Your task to perform on an android device: change keyboard looks Image 0: 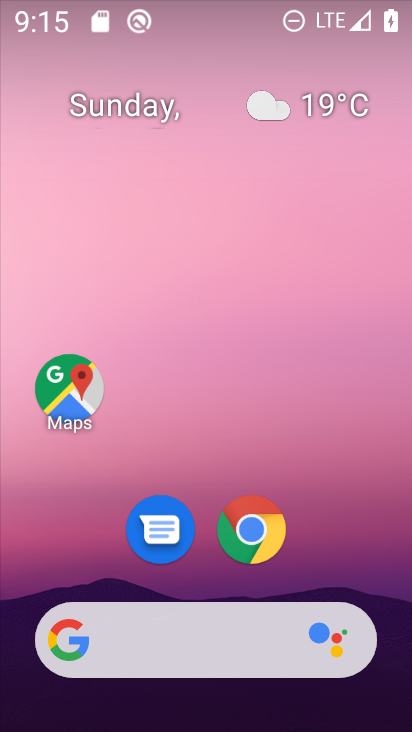
Step 0: press home button
Your task to perform on an android device: change keyboard looks Image 1: 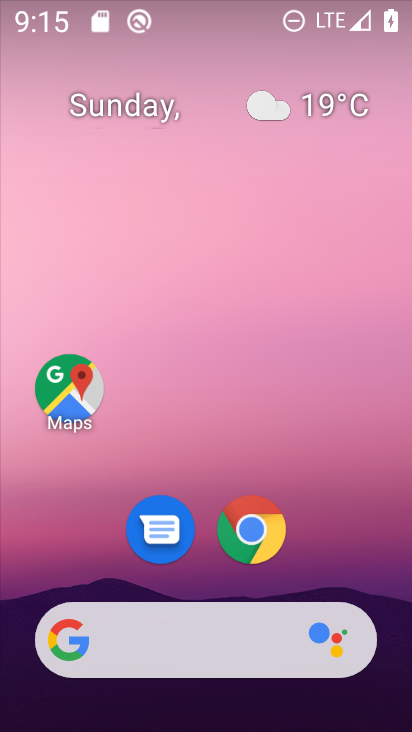
Step 1: drag from (205, 569) to (203, 32)
Your task to perform on an android device: change keyboard looks Image 2: 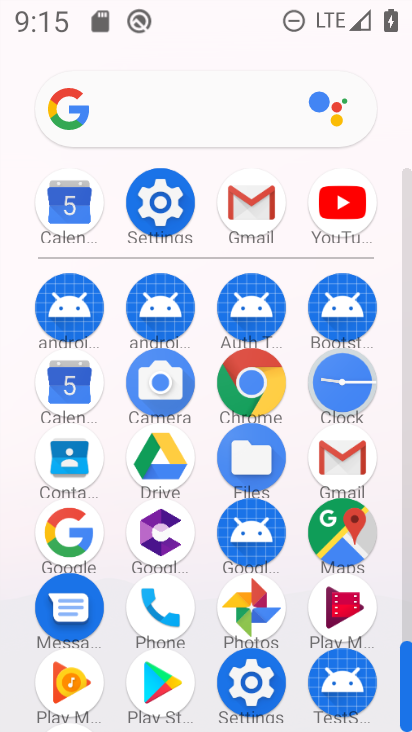
Step 2: click (158, 193)
Your task to perform on an android device: change keyboard looks Image 3: 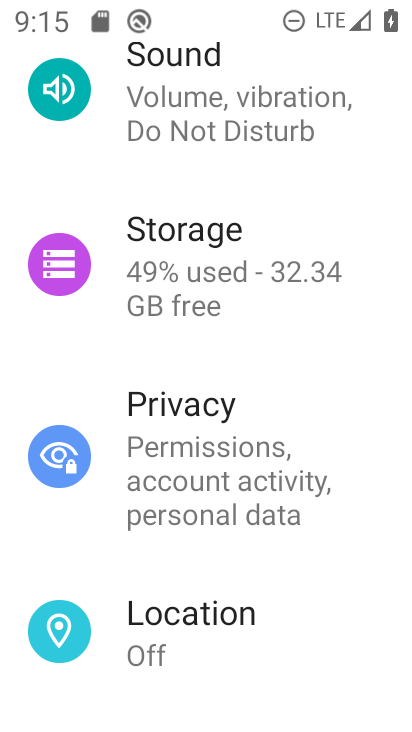
Step 3: drag from (235, 644) to (233, 601)
Your task to perform on an android device: change keyboard looks Image 4: 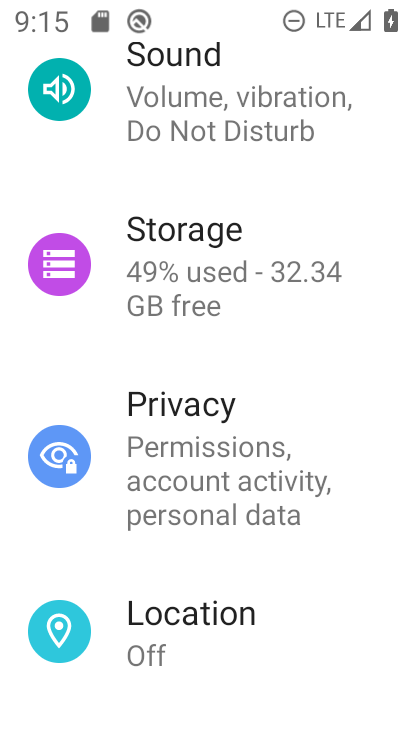
Step 4: drag from (232, 359) to (241, 71)
Your task to perform on an android device: change keyboard looks Image 5: 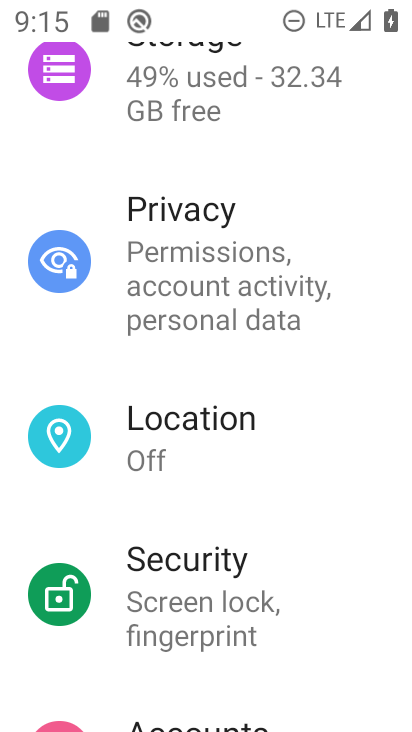
Step 5: drag from (230, 677) to (249, 45)
Your task to perform on an android device: change keyboard looks Image 6: 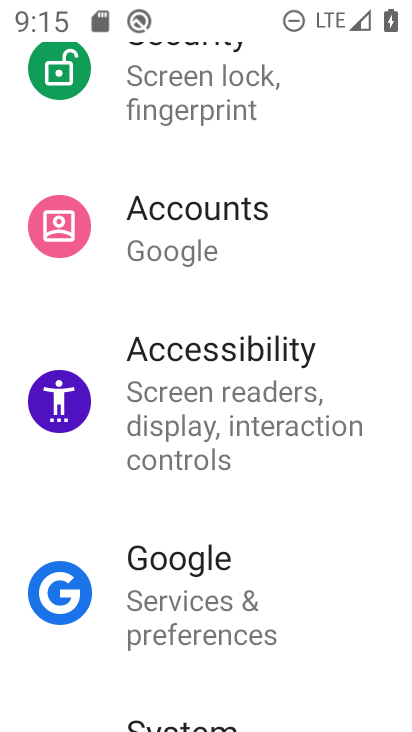
Step 6: drag from (213, 671) to (229, 66)
Your task to perform on an android device: change keyboard looks Image 7: 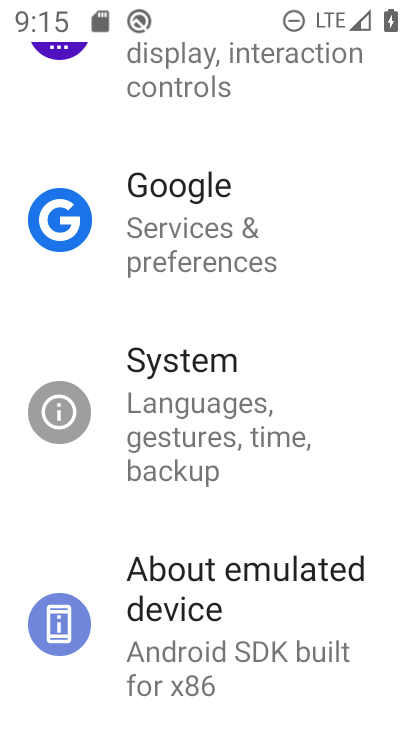
Step 7: click (298, 394)
Your task to perform on an android device: change keyboard looks Image 8: 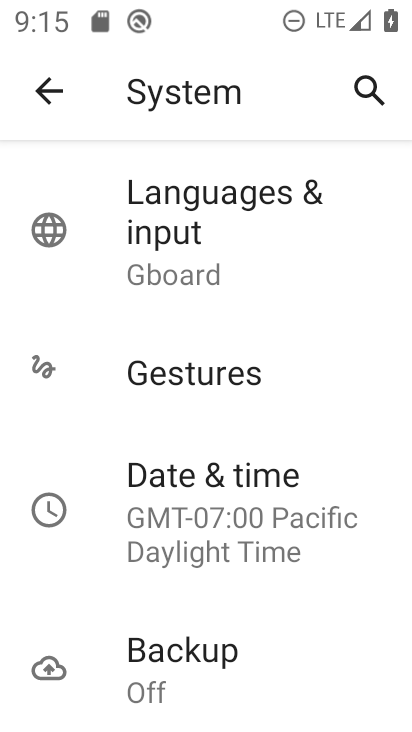
Step 8: drag from (98, 636) to (91, 596)
Your task to perform on an android device: change keyboard looks Image 9: 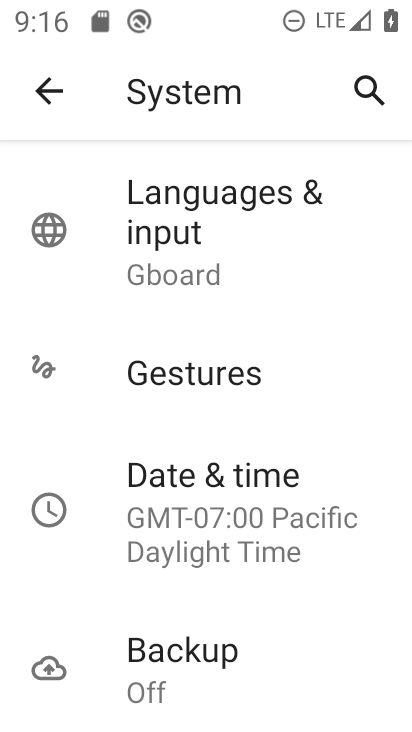
Step 9: click (90, 224)
Your task to perform on an android device: change keyboard looks Image 10: 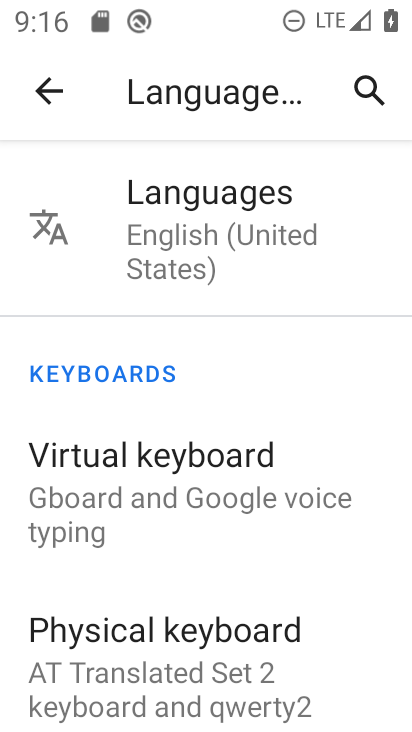
Step 10: click (292, 461)
Your task to perform on an android device: change keyboard looks Image 11: 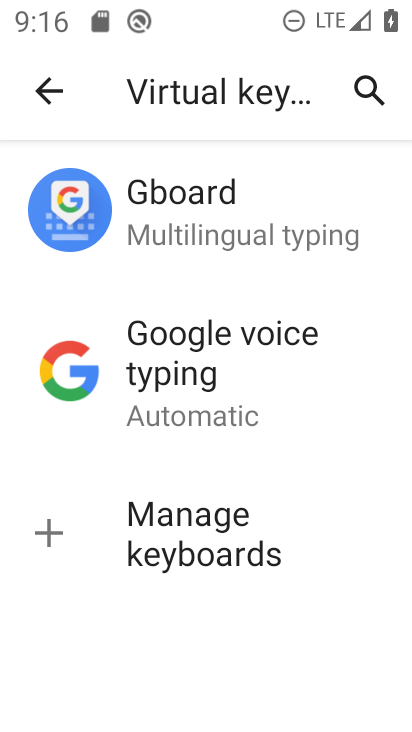
Step 11: click (251, 196)
Your task to perform on an android device: change keyboard looks Image 12: 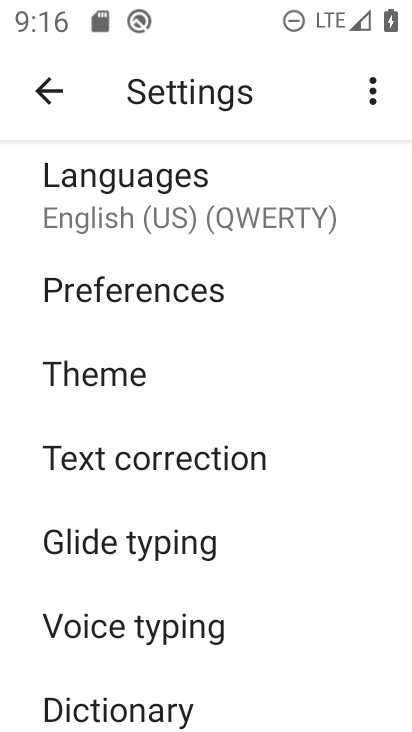
Step 12: click (162, 373)
Your task to perform on an android device: change keyboard looks Image 13: 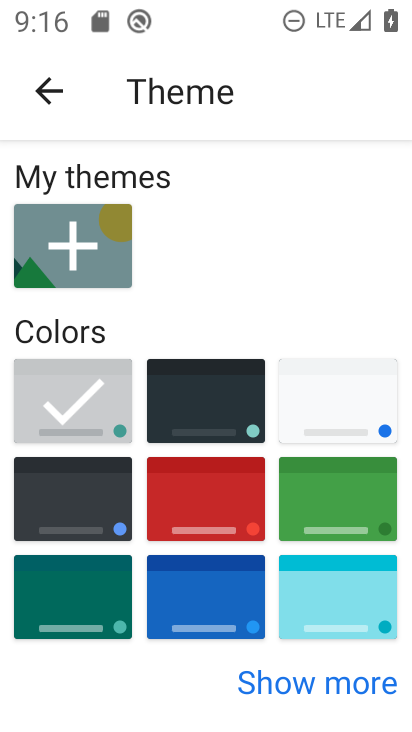
Step 13: click (207, 493)
Your task to perform on an android device: change keyboard looks Image 14: 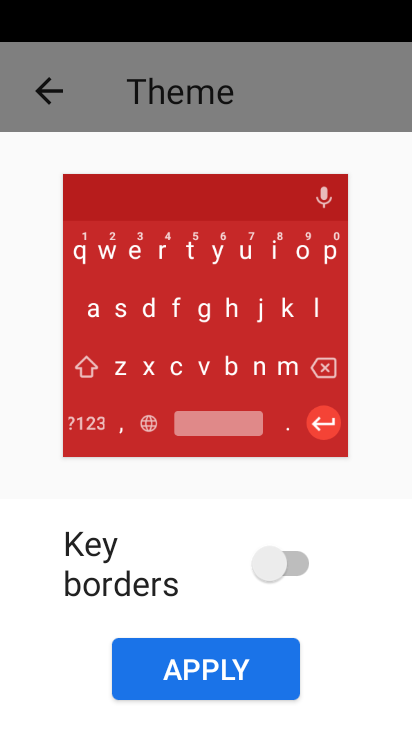
Step 14: click (195, 662)
Your task to perform on an android device: change keyboard looks Image 15: 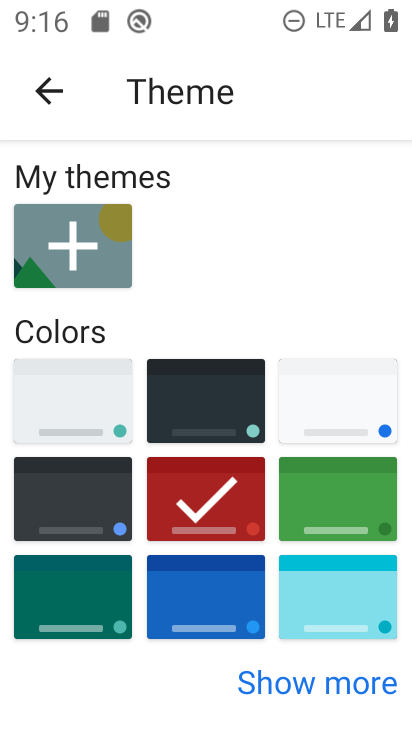
Step 15: task complete